Your task to perform on an android device: Search for Italian restaurants on Maps Image 0: 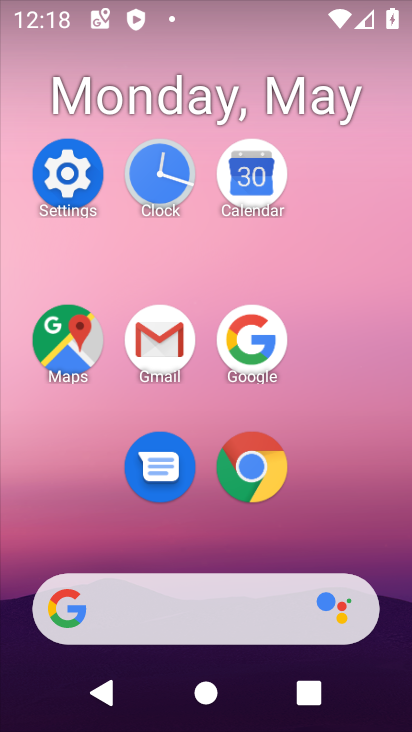
Step 0: click (60, 341)
Your task to perform on an android device: Search for Italian restaurants on Maps Image 1: 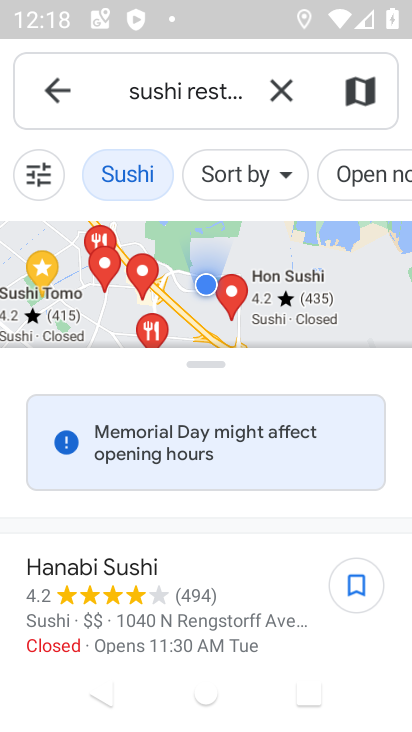
Step 1: click (275, 96)
Your task to perform on an android device: Search for Italian restaurants on Maps Image 2: 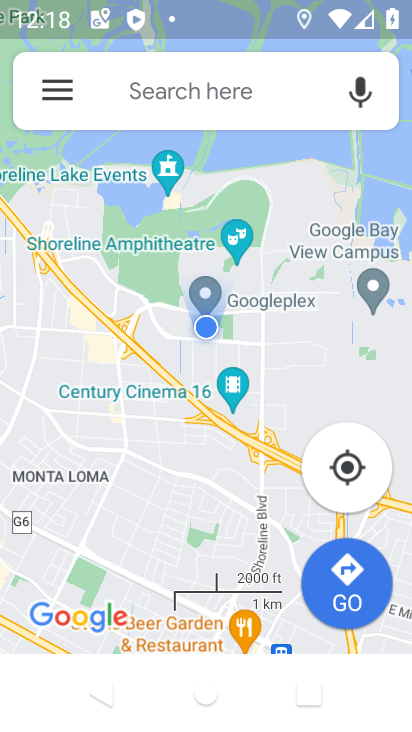
Step 2: click (296, 86)
Your task to perform on an android device: Search for Italian restaurants on Maps Image 3: 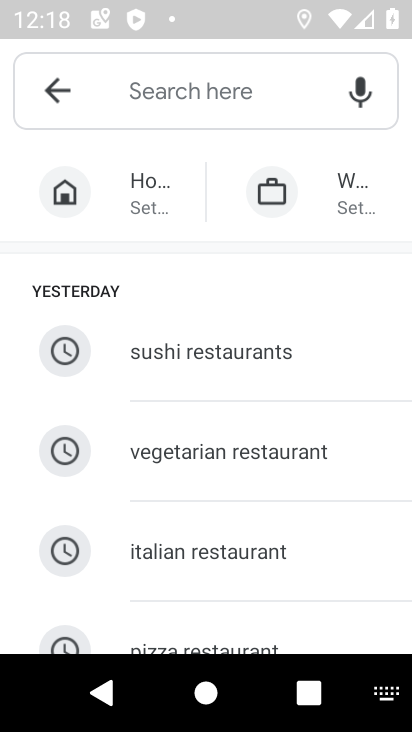
Step 3: click (231, 548)
Your task to perform on an android device: Search for Italian restaurants on Maps Image 4: 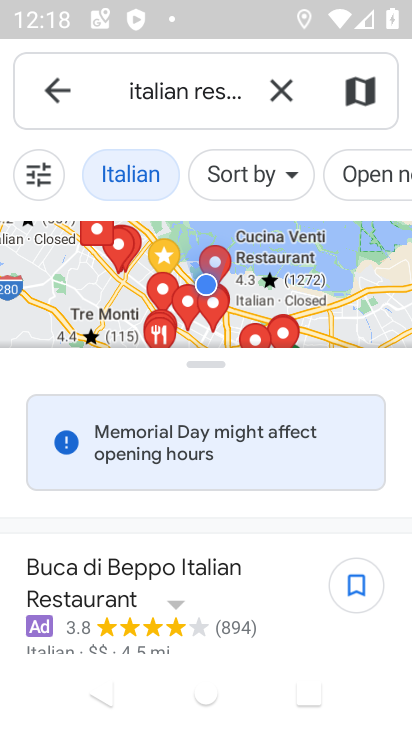
Step 4: task complete